Your task to perform on an android device: delete browsing data in the chrome app Image 0: 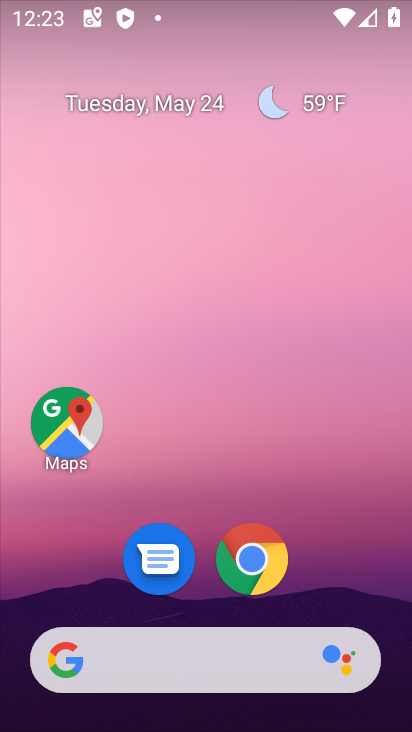
Step 0: click (256, 565)
Your task to perform on an android device: delete browsing data in the chrome app Image 1: 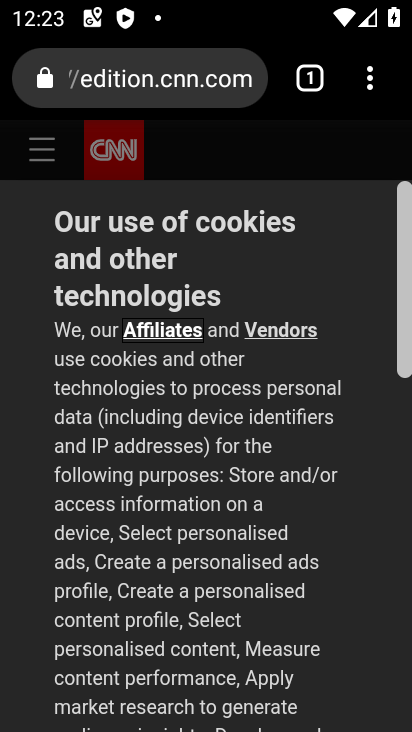
Step 1: click (371, 82)
Your task to perform on an android device: delete browsing data in the chrome app Image 2: 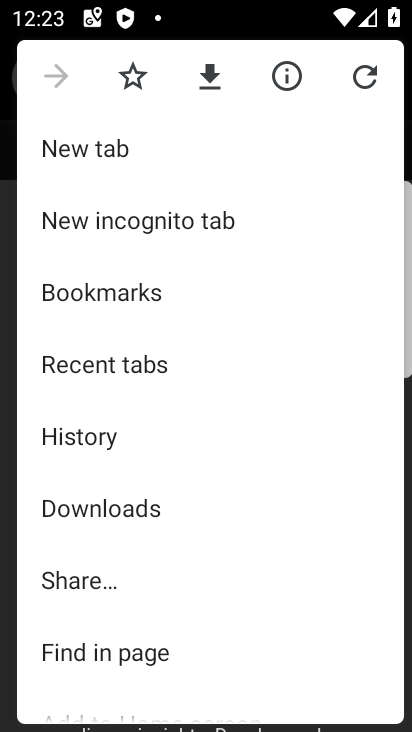
Step 2: click (88, 434)
Your task to perform on an android device: delete browsing data in the chrome app Image 3: 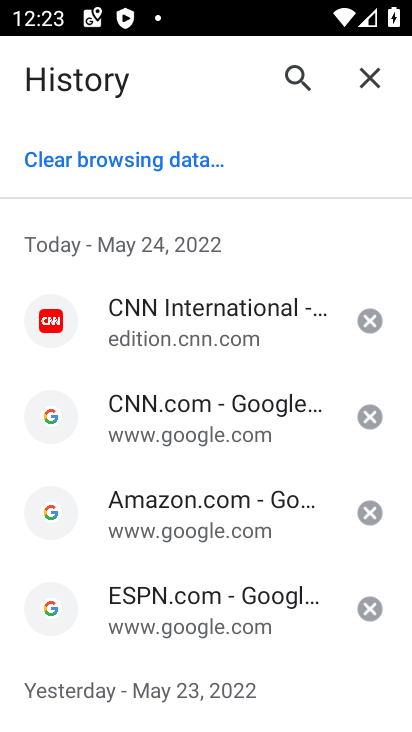
Step 3: click (153, 155)
Your task to perform on an android device: delete browsing data in the chrome app Image 4: 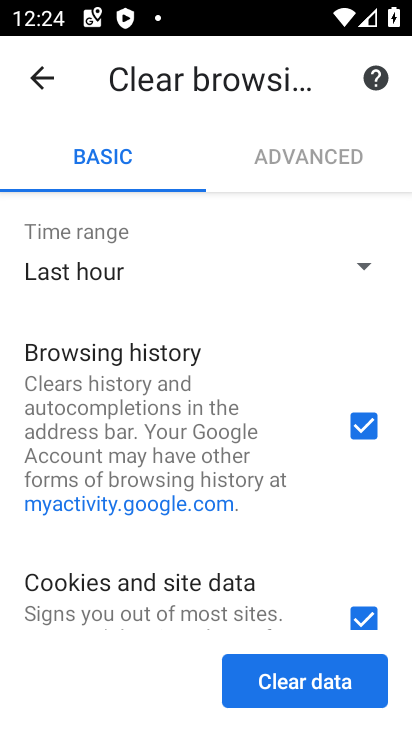
Step 4: click (302, 677)
Your task to perform on an android device: delete browsing data in the chrome app Image 5: 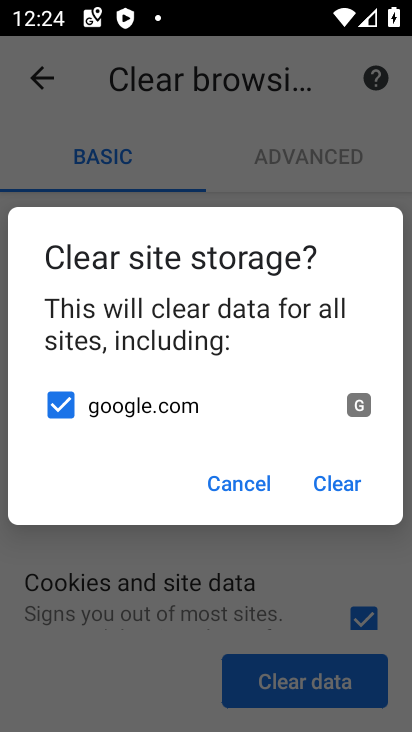
Step 5: click (350, 479)
Your task to perform on an android device: delete browsing data in the chrome app Image 6: 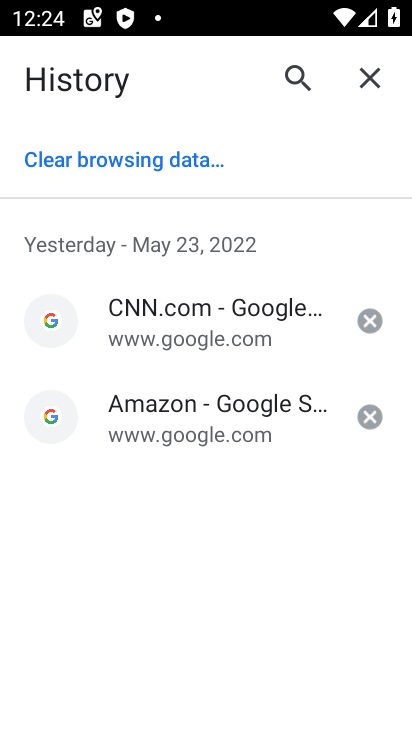
Step 6: task complete